Your task to perform on an android device: Go to Reddit.com Image 0: 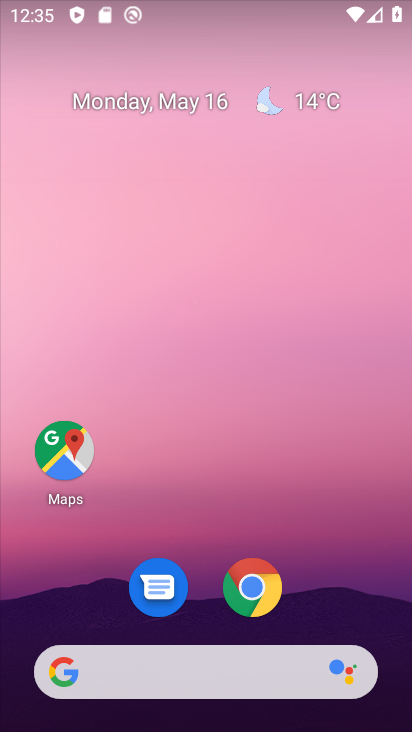
Step 0: click (253, 591)
Your task to perform on an android device: Go to Reddit.com Image 1: 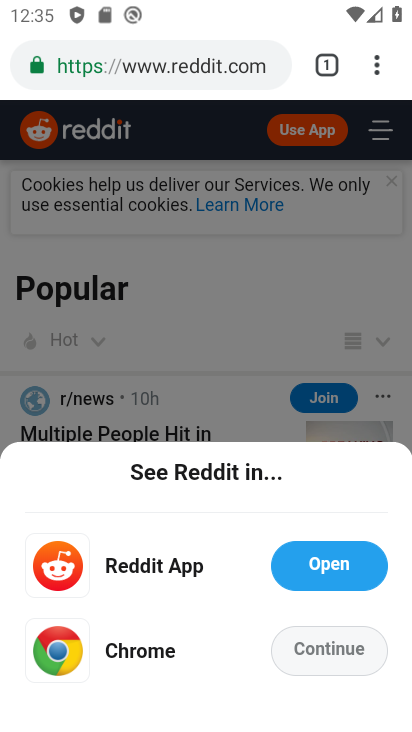
Step 1: task complete